Your task to perform on an android device: Go to Amazon Image 0: 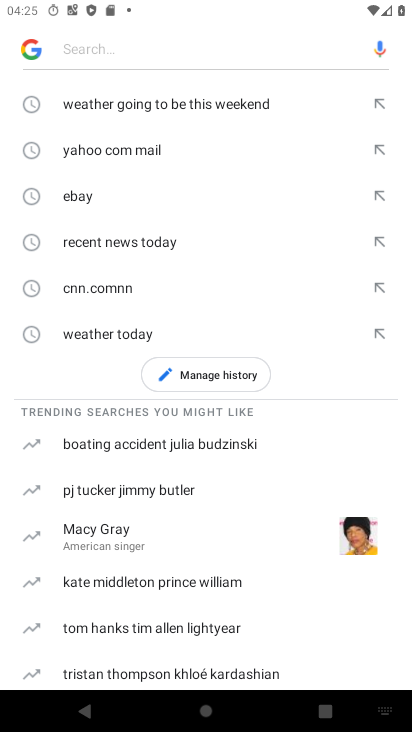
Step 0: press home button
Your task to perform on an android device: Go to Amazon Image 1: 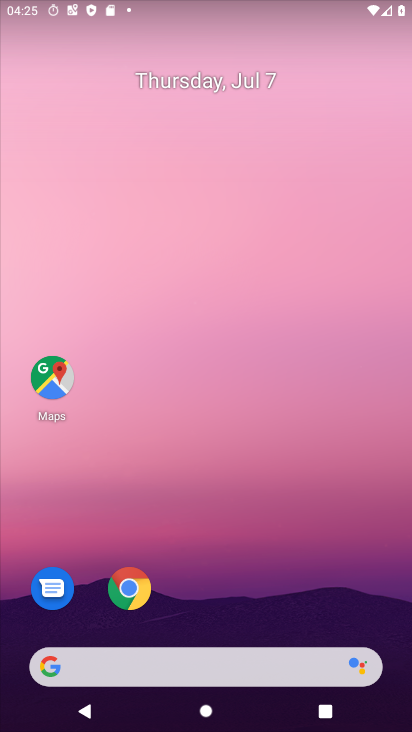
Step 1: click (39, 671)
Your task to perform on an android device: Go to Amazon Image 2: 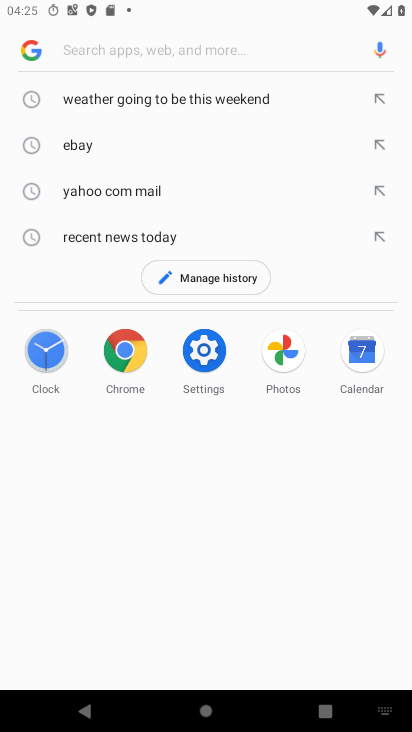
Step 2: type "Amazon"
Your task to perform on an android device: Go to Amazon Image 3: 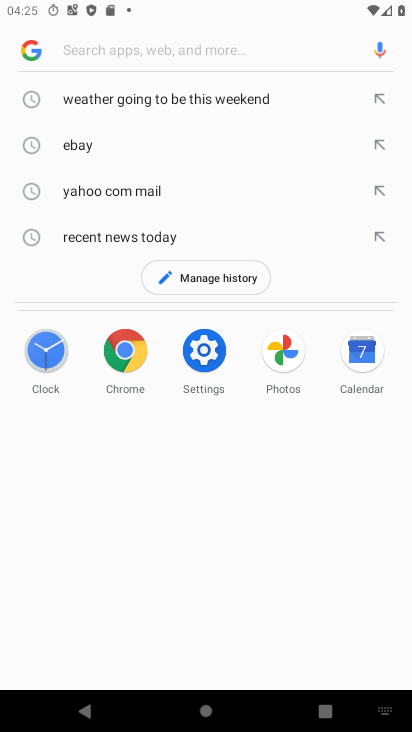
Step 3: click (234, 46)
Your task to perform on an android device: Go to Amazon Image 4: 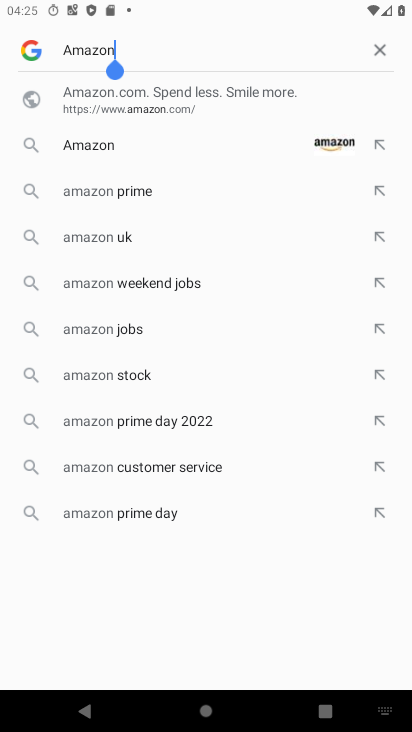
Step 4: click (98, 145)
Your task to perform on an android device: Go to Amazon Image 5: 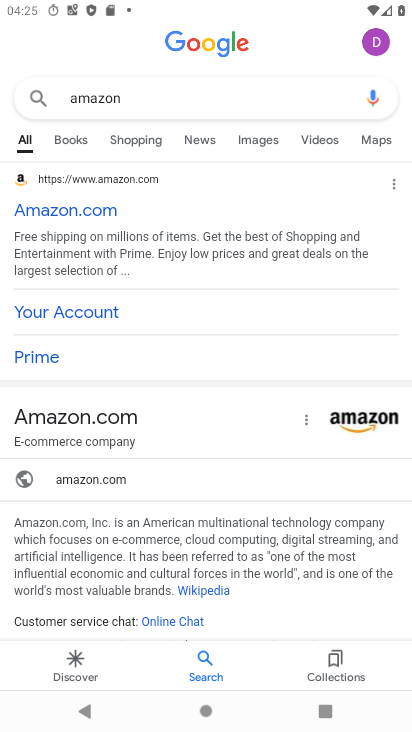
Step 5: click (50, 214)
Your task to perform on an android device: Go to Amazon Image 6: 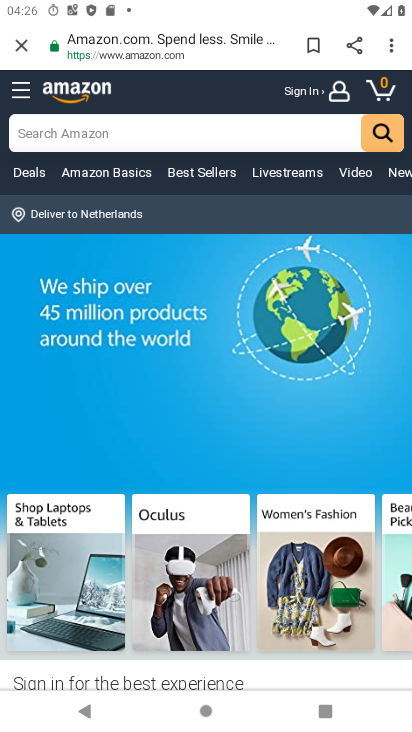
Step 6: task complete